Your task to perform on an android device: Go to accessibility settings Image 0: 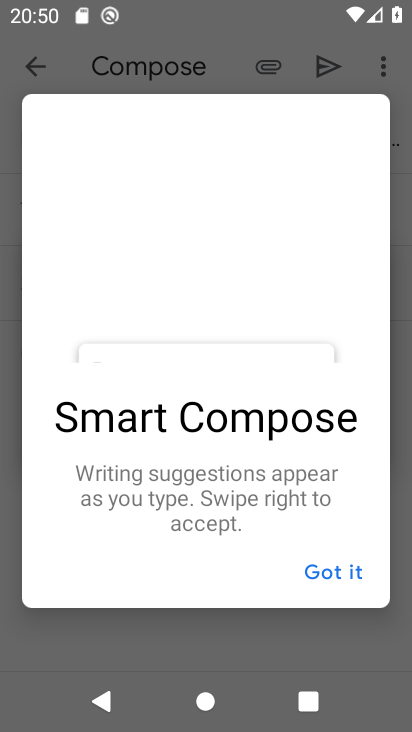
Step 0: press home button
Your task to perform on an android device: Go to accessibility settings Image 1: 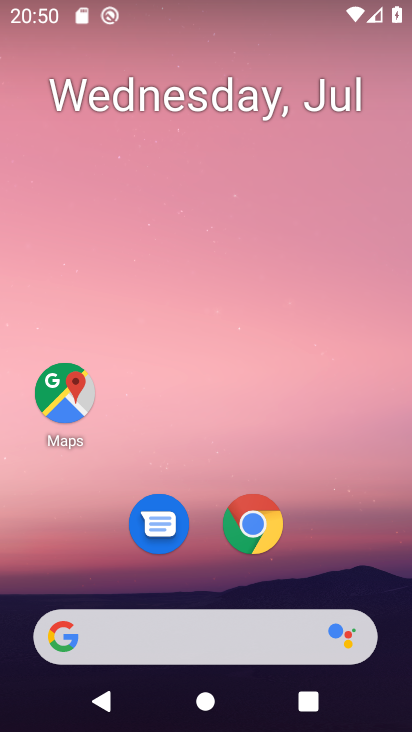
Step 1: drag from (198, 642) to (325, 90)
Your task to perform on an android device: Go to accessibility settings Image 2: 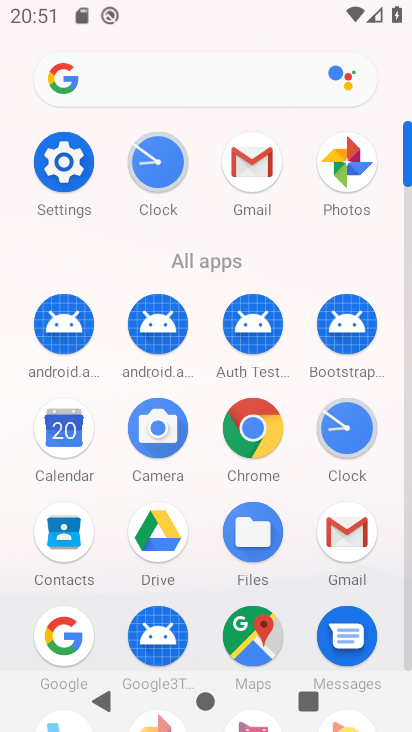
Step 2: click (65, 158)
Your task to perform on an android device: Go to accessibility settings Image 3: 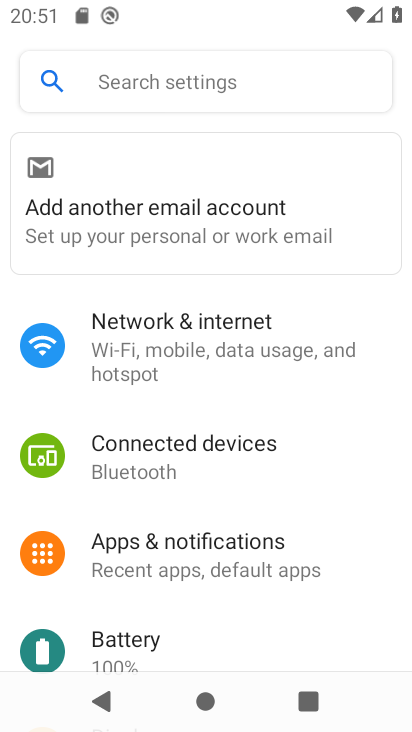
Step 3: drag from (268, 613) to (377, 237)
Your task to perform on an android device: Go to accessibility settings Image 4: 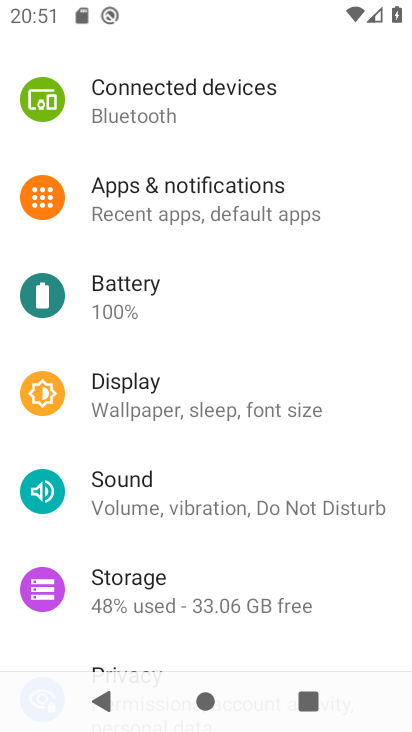
Step 4: drag from (265, 539) to (380, 101)
Your task to perform on an android device: Go to accessibility settings Image 5: 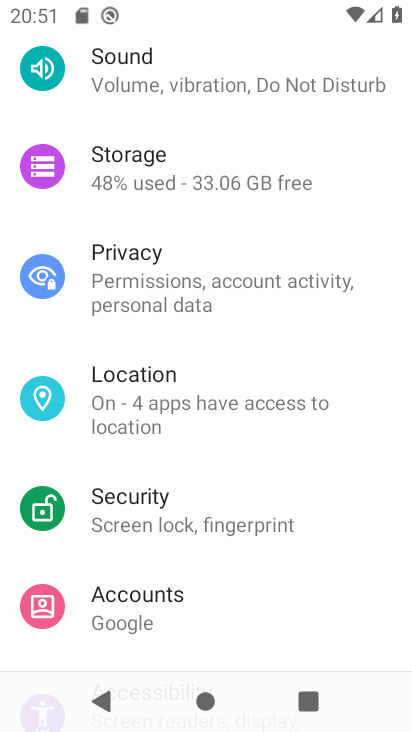
Step 5: drag from (261, 564) to (342, 86)
Your task to perform on an android device: Go to accessibility settings Image 6: 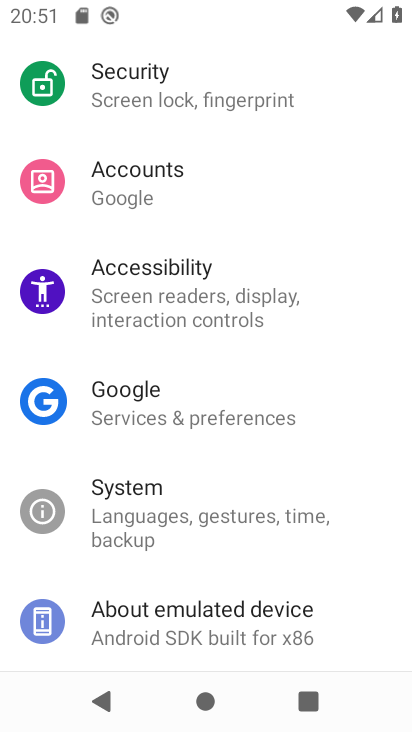
Step 6: click (193, 272)
Your task to perform on an android device: Go to accessibility settings Image 7: 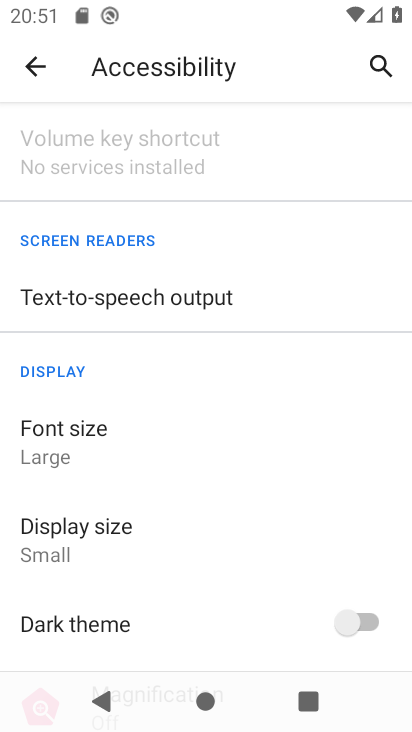
Step 7: task complete